Your task to perform on an android device: Open sound settings Image 0: 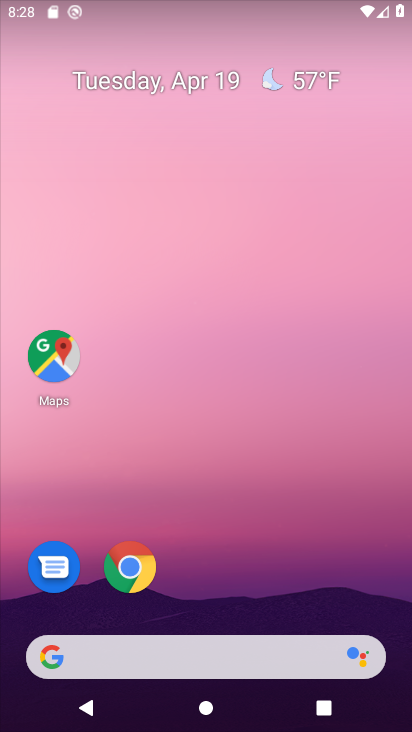
Step 0: click (307, 77)
Your task to perform on an android device: Open sound settings Image 1: 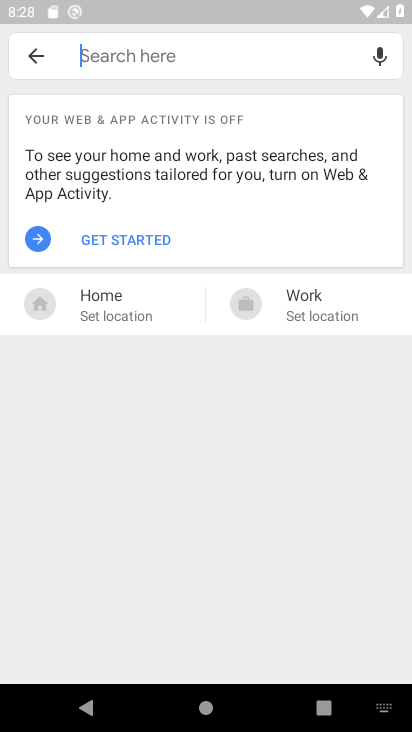
Step 1: press home button
Your task to perform on an android device: Open sound settings Image 2: 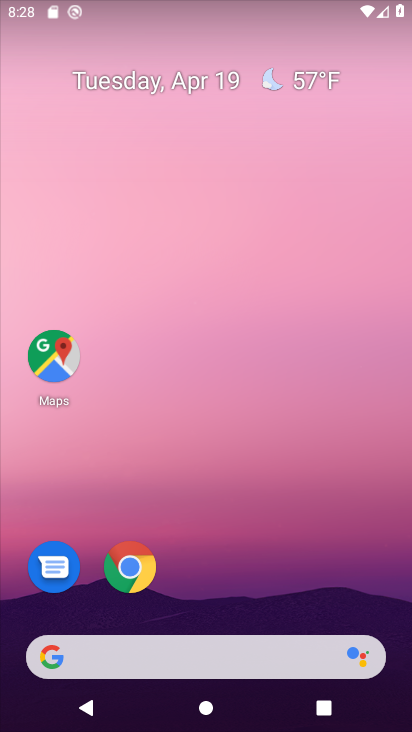
Step 2: drag from (246, 519) to (281, 14)
Your task to perform on an android device: Open sound settings Image 3: 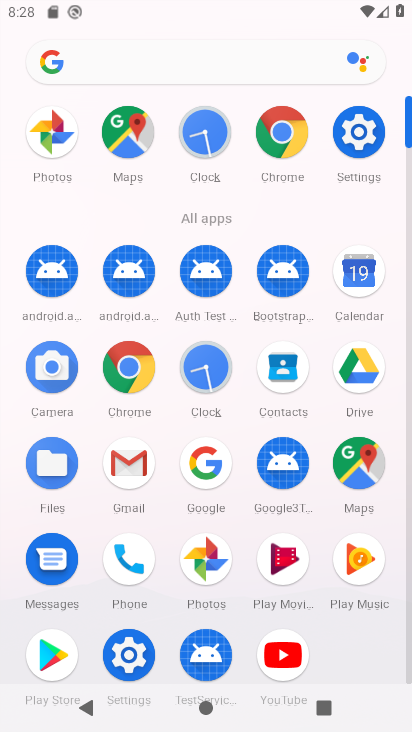
Step 3: click (206, 460)
Your task to perform on an android device: Open sound settings Image 4: 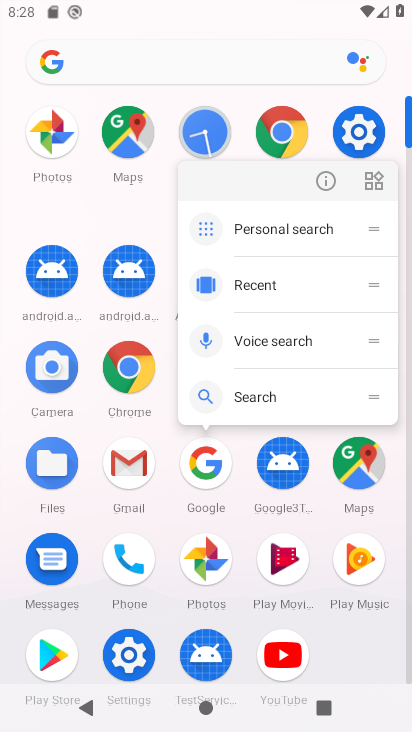
Step 4: click (326, 178)
Your task to perform on an android device: Open sound settings Image 5: 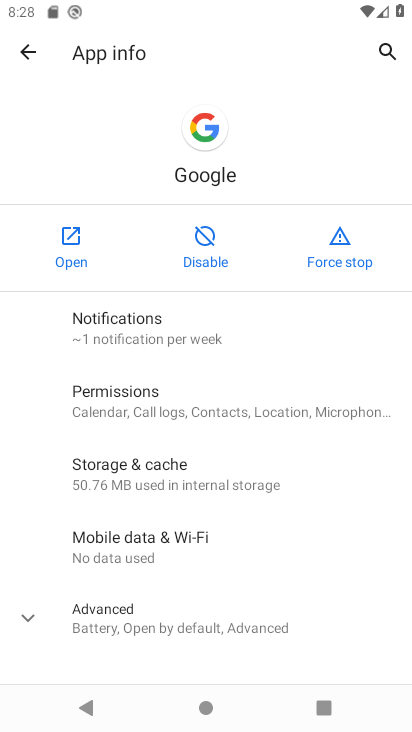
Step 5: drag from (268, 531) to (269, 0)
Your task to perform on an android device: Open sound settings Image 6: 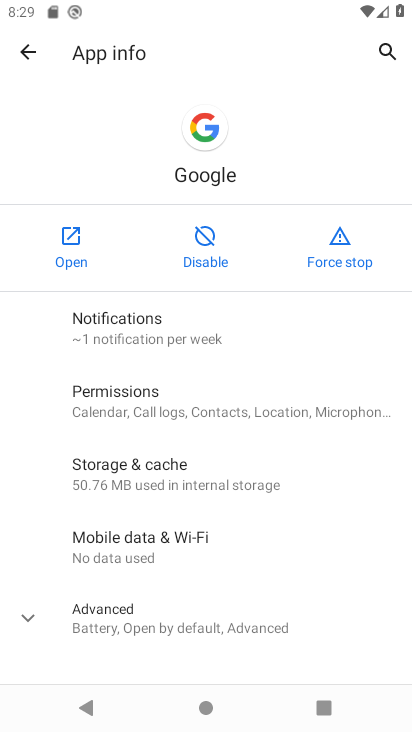
Step 6: click (196, 631)
Your task to perform on an android device: Open sound settings Image 7: 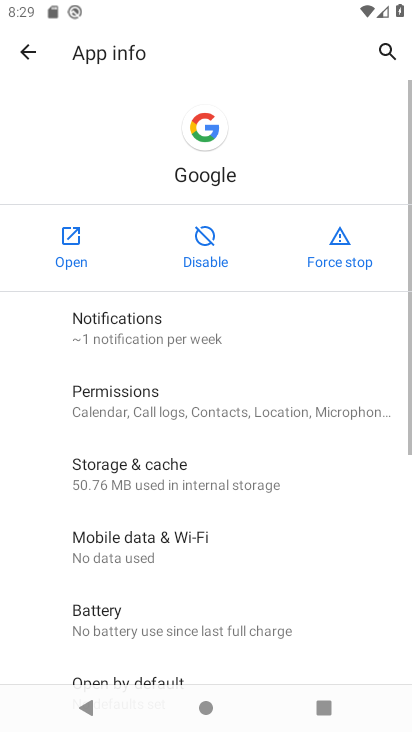
Step 7: task complete